Your task to perform on an android device: turn off airplane mode Image 0: 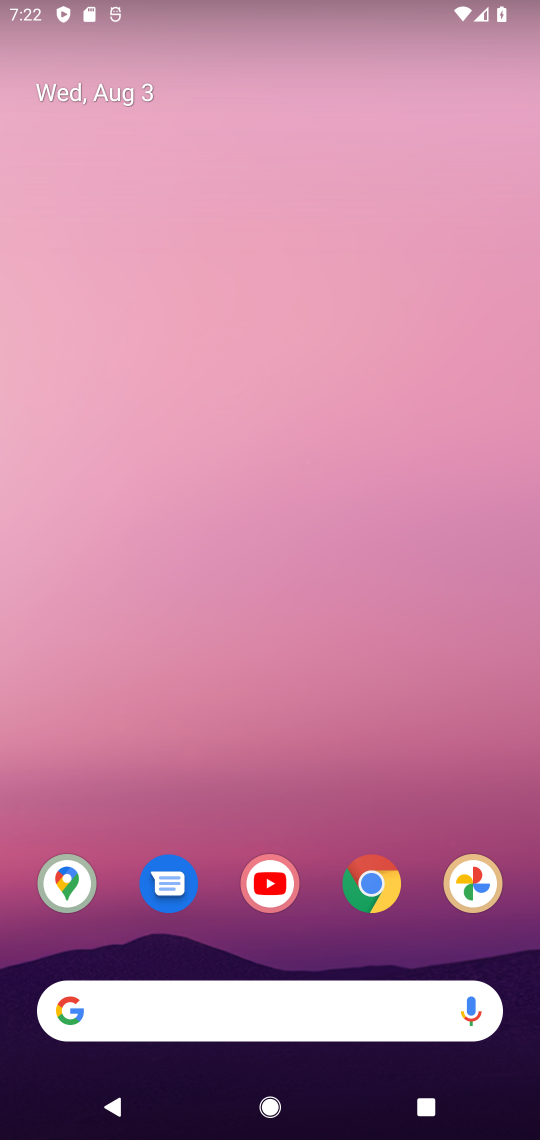
Step 0: drag from (272, 775) to (178, 180)
Your task to perform on an android device: turn off airplane mode Image 1: 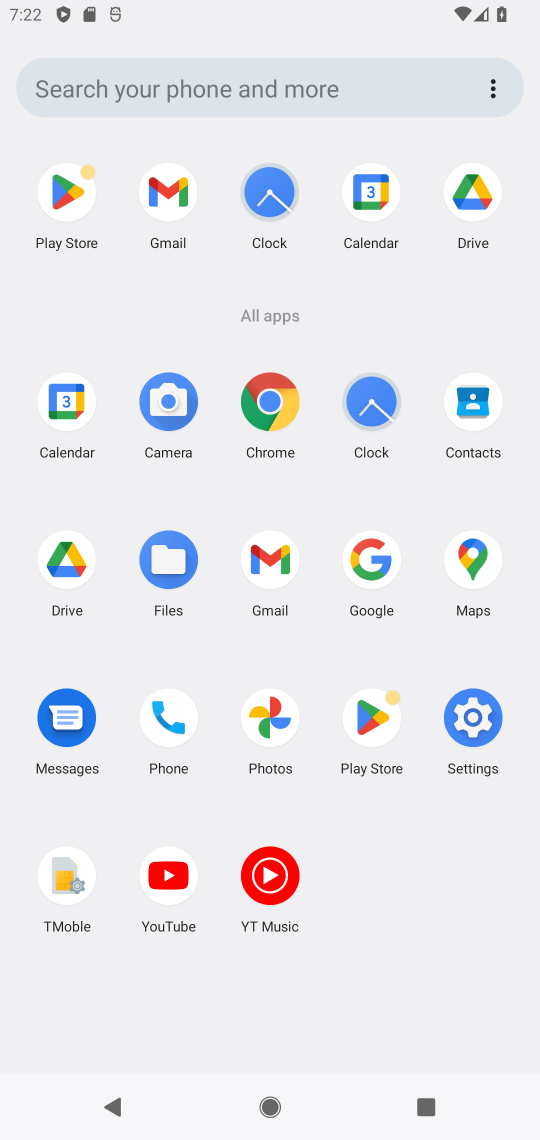
Step 1: click (482, 749)
Your task to perform on an android device: turn off airplane mode Image 2: 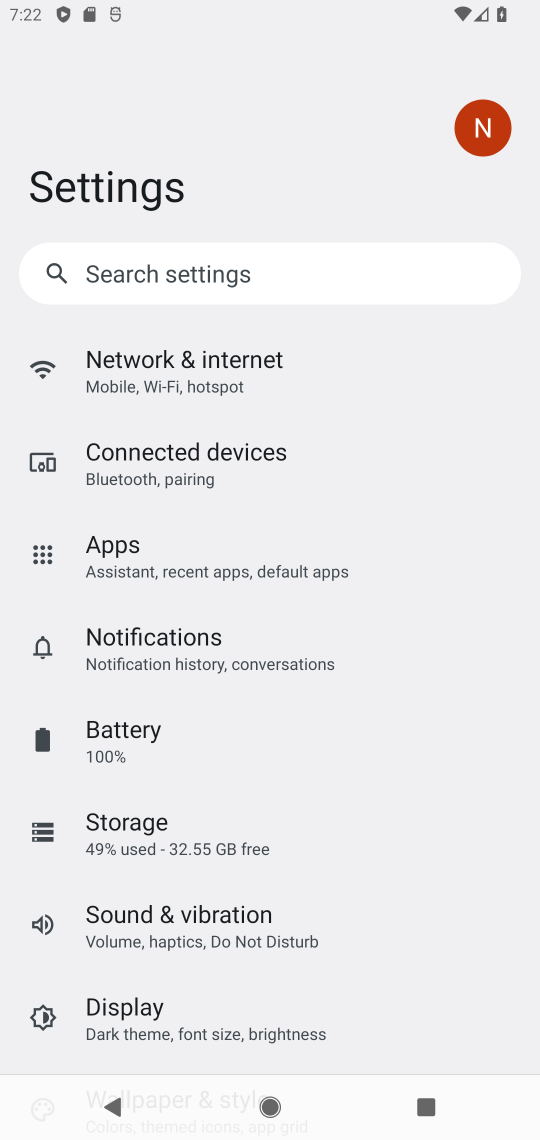
Step 2: click (340, 388)
Your task to perform on an android device: turn off airplane mode Image 3: 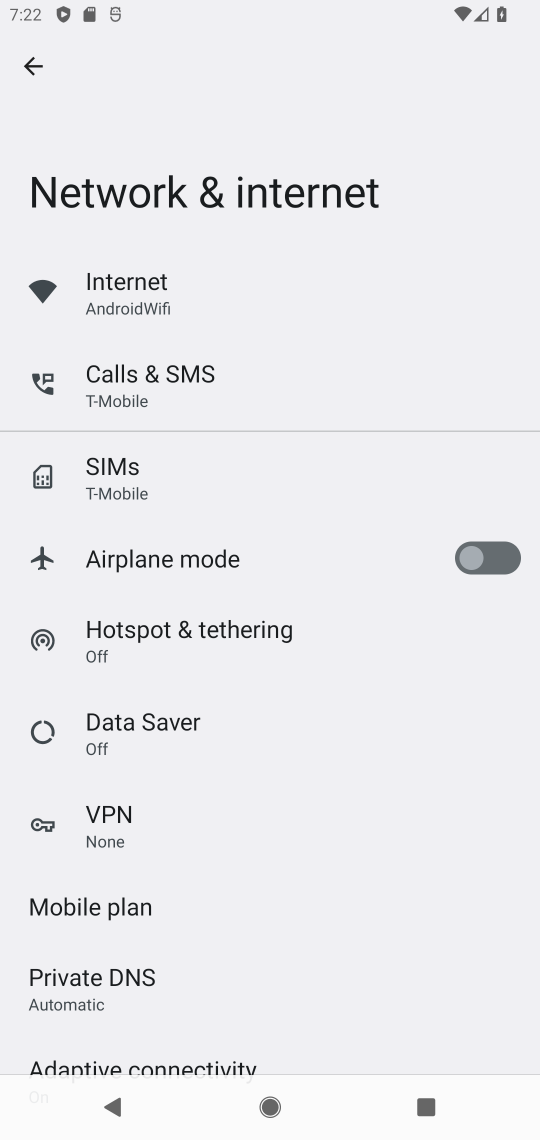
Step 3: task complete